Your task to perform on an android device: Open battery settings Image 0: 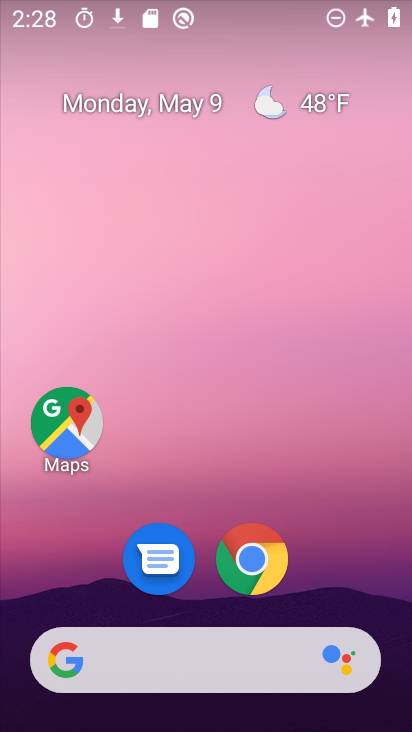
Step 0: drag from (192, 605) to (317, 246)
Your task to perform on an android device: Open battery settings Image 1: 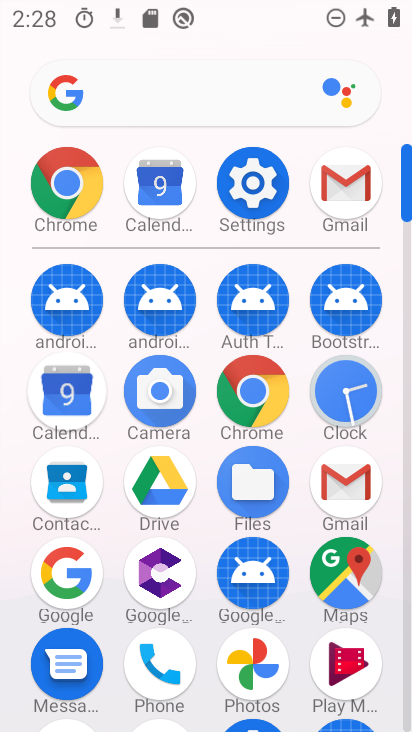
Step 1: drag from (208, 657) to (205, 298)
Your task to perform on an android device: Open battery settings Image 2: 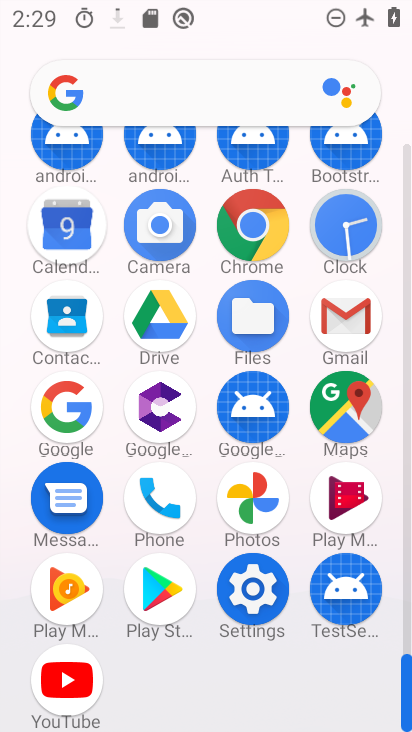
Step 2: click (263, 582)
Your task to perform on an android device: Open battery settings Image 3: 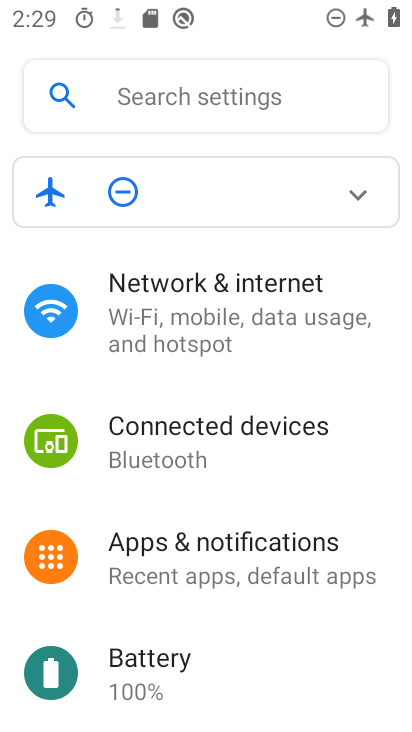
Step 3: drag from (266, 654) to (271, 353)
Your task to perform on an android device: Open battery settings Image 4: 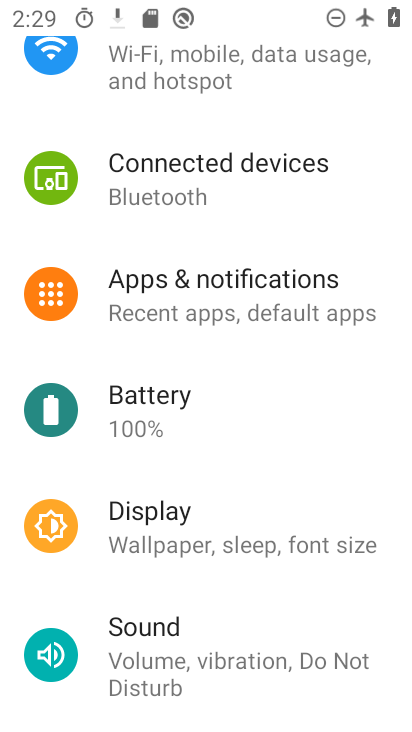
Step 4: click (208, 422)
Your task to perform on an android device: Open battery settings Image 5: 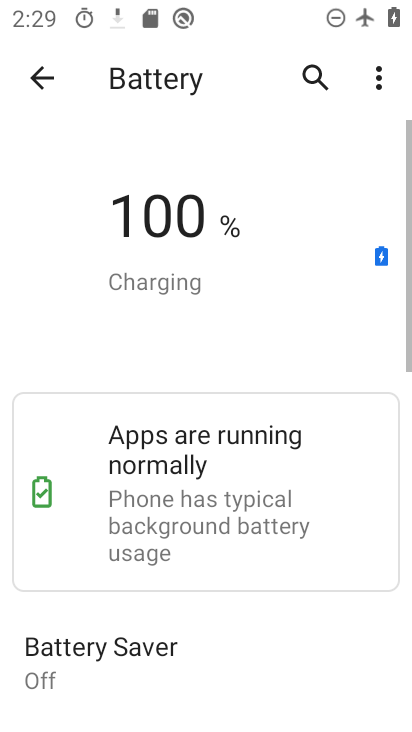
Step 5: task complete